Your task to perform on an android device: open chrome privacy settings Image 0: 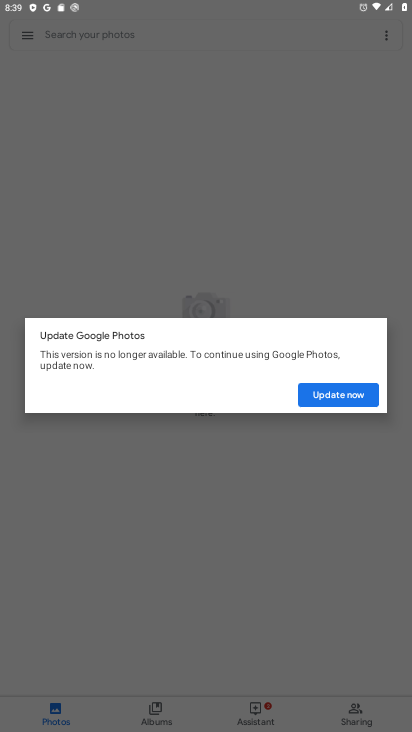
Step 0: press back button
Your task to perform on an android device: open chrome privacy settings Image 1: 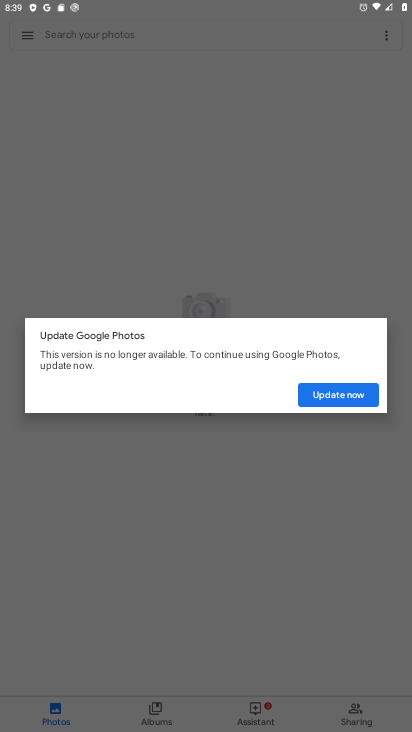
Step 1: press back button
Your task to perform on an android device: open chrome privacy settings Image 2: 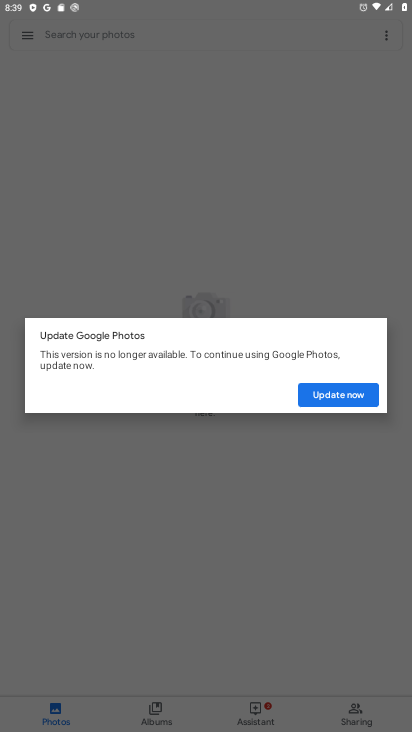
Step 2: press back button
Your task to perform on an android device: open chrome privacy settings Image 3: 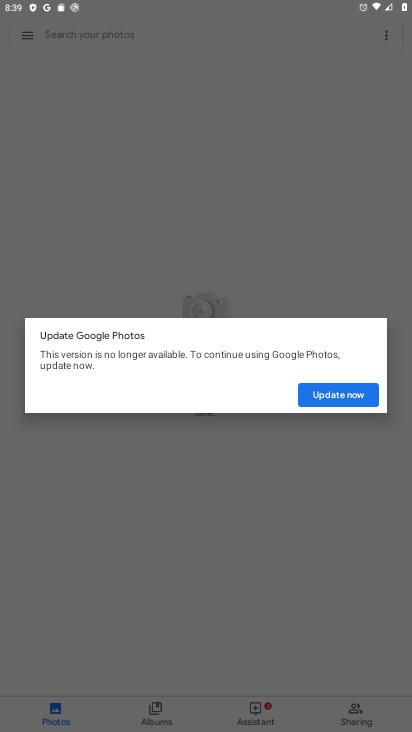
Step 3: press back button
Your task to perform on an android device: open chrome privacy settings Image 4: 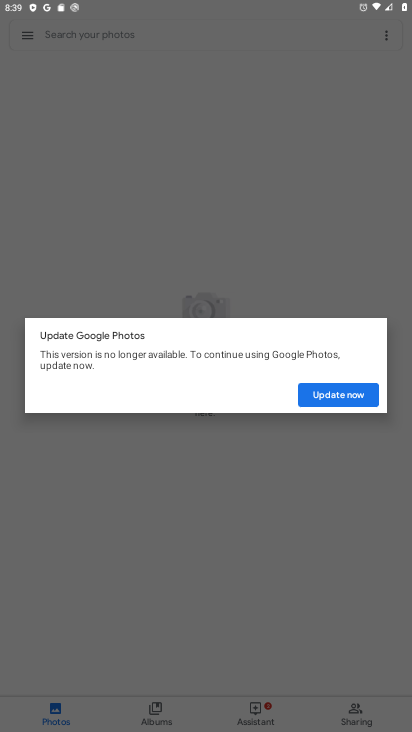
Step 4: press back button
Your task to perform on an android device: open chrome privacy settings Image 5: 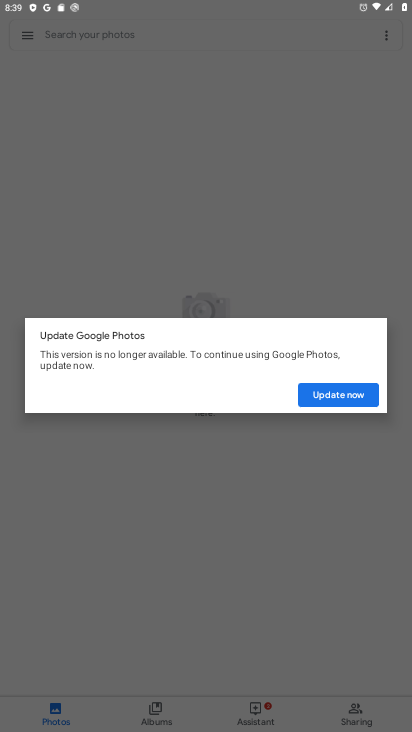
Step 5: press back button
Your task to perform on an android device: open chrome privacy settings Image 6: 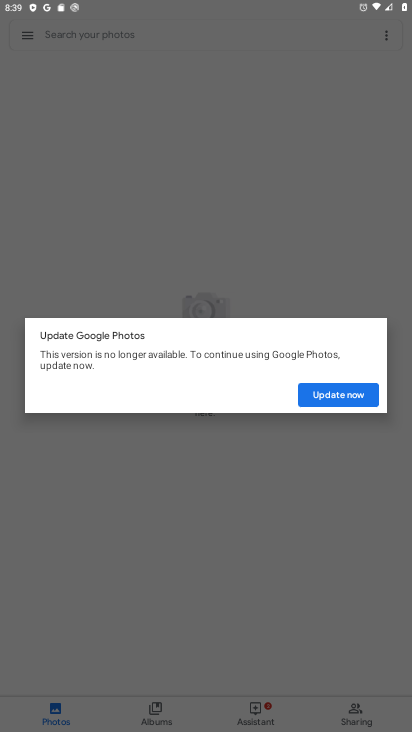
Step 6: press back button
Your task to perform on an android device: open chrome privacy settings Image 7: 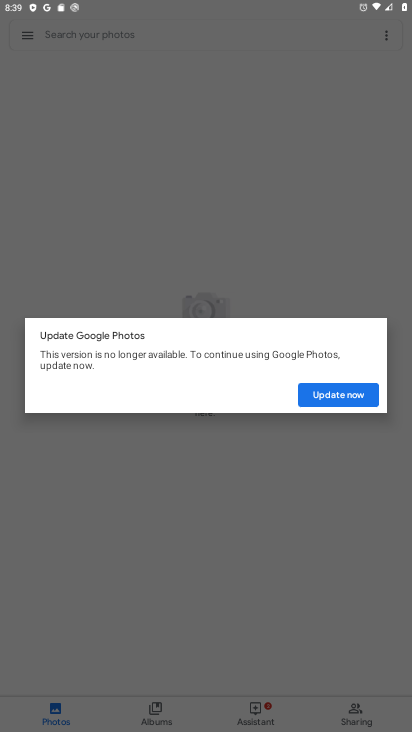
Step 7: press back button
Your task to perform on an android device: open chrome privacy settings Image 8: 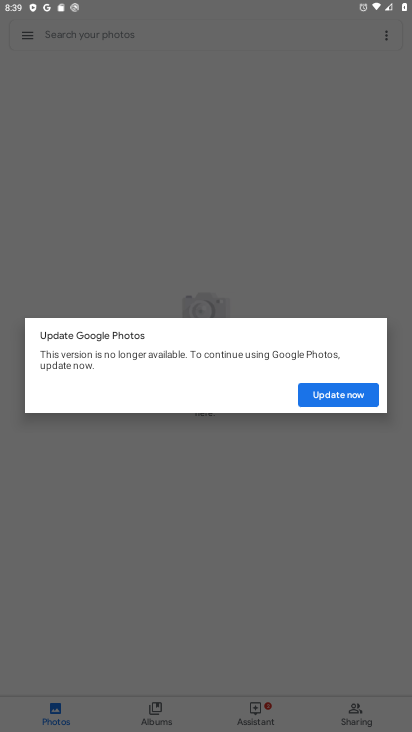
Step 8: click (240, 194)
Your task to perform on an android device: open chrome privacy settings Image 9: 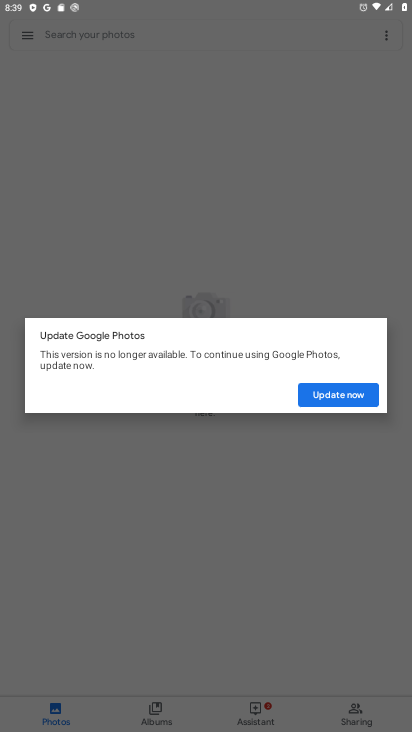
Step 9: click (248, 196)
Your task to perform on an android device: open chrome privacy settings Image 10: 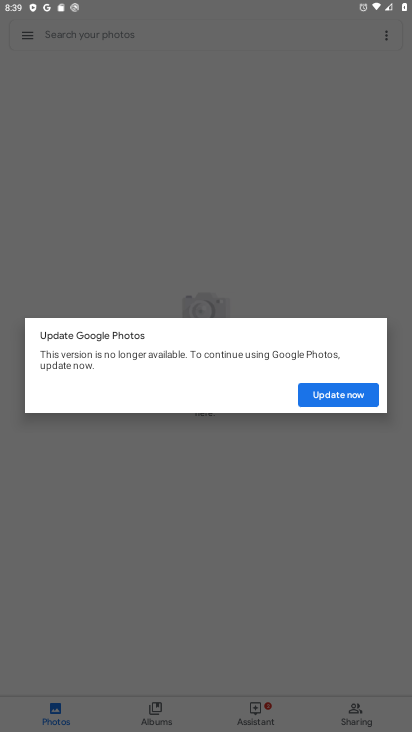
Step 10: click (251, 198)
Your task to perform on an android device: open chrome privacy settings Image 11: 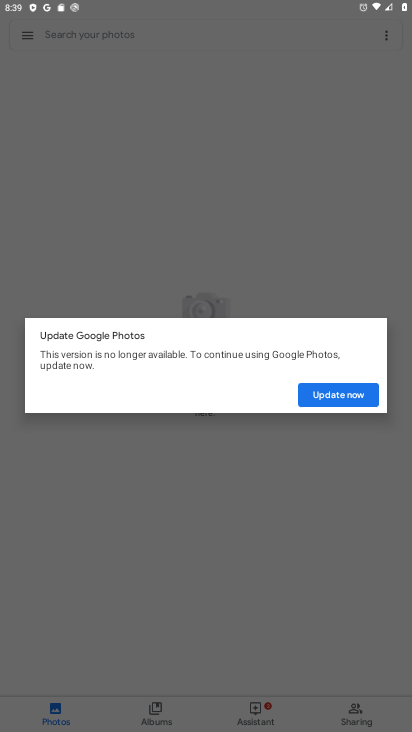
Step 11: click (254, 201)
Your task to perform on an android device: open chrome privacy settings Image 12: 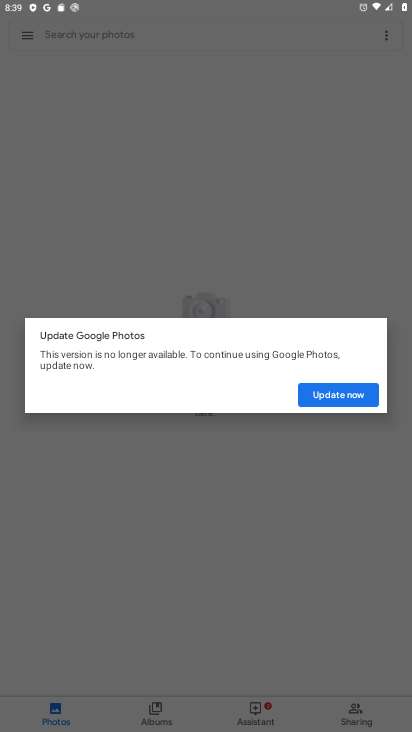
Step 12: click (261, 203)
Your task to perform on an android device: open chrome privacy settings Image 13: 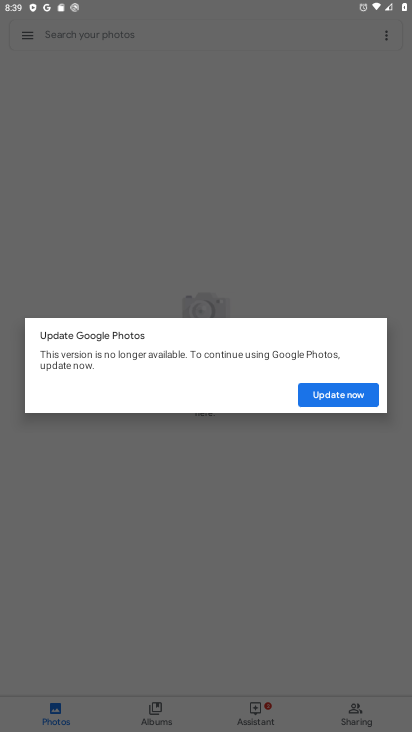
Step 13: click (317, 245)
Your task to perform on an android device: open chrome privacy settings Image 14: 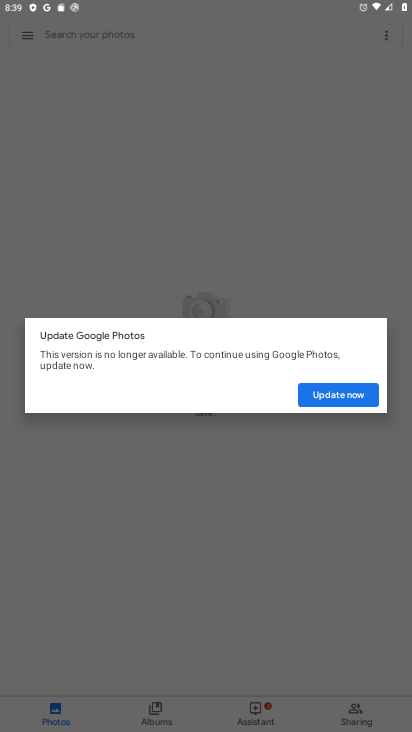
Step 14: click (320, 241)
Your task to perform on an android device: open chrome privacy settings Image 15: 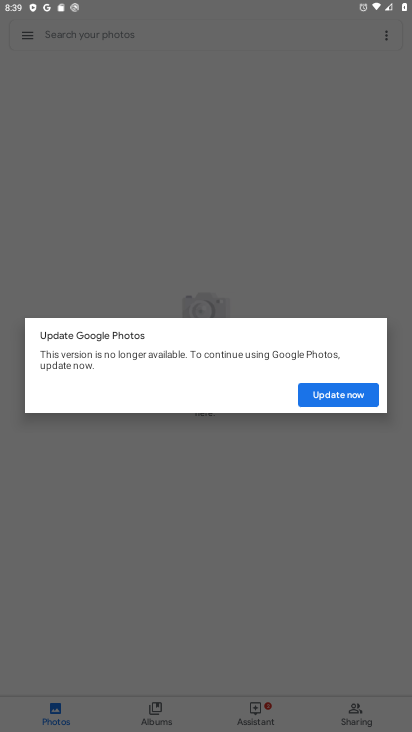
Step 15: click (320, 239)
Your task to perform on an android device: open chrome privacy settings Image 16: 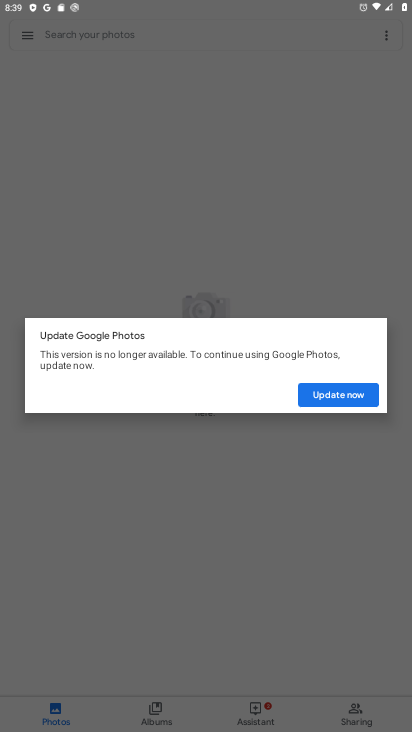
Step 16: click (320, 242)
Your task to perform on an android device: open chrome privacy settings Image 17: 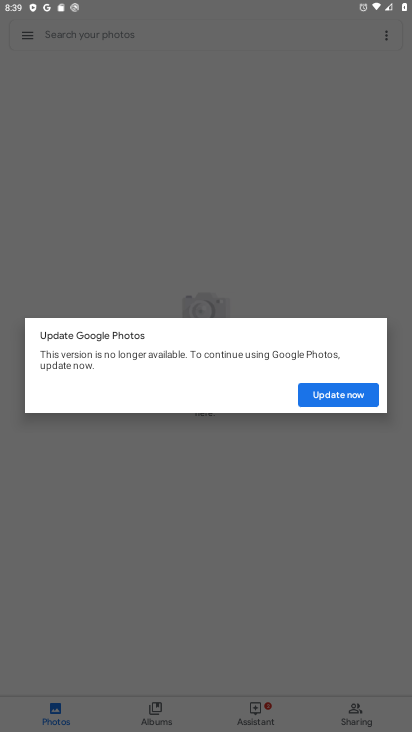
Step 17: click (322, 248)
Your task to perform on an android device: open chrome privacy settings Image 18: 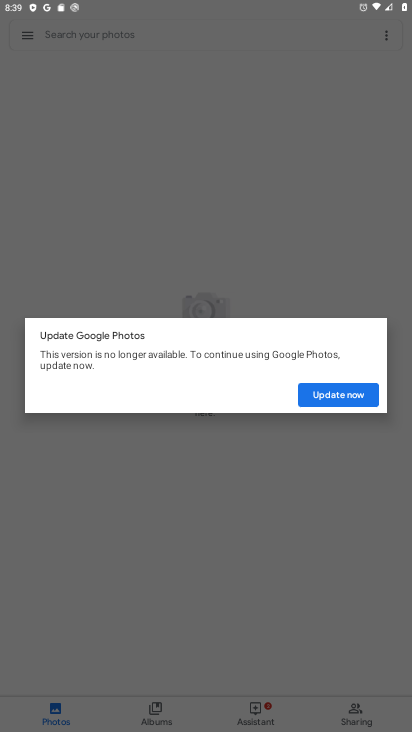
Step 18: press back button
Your task to perform on an android device: open chrome privacy settings Image 19: 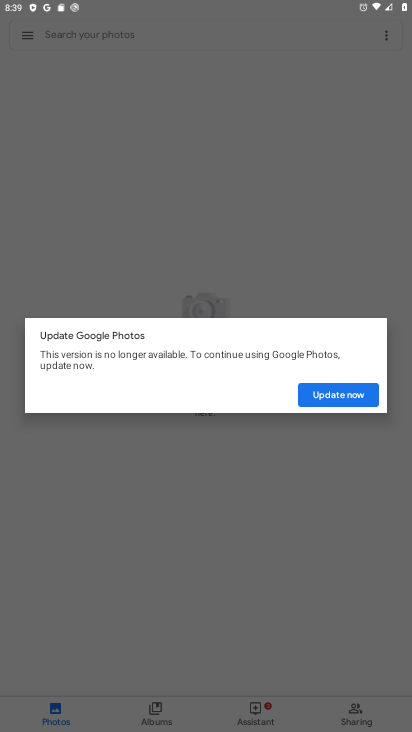
Step 19: press back button
Your task to perform on an android device: open chrome privacy settings Image 20: 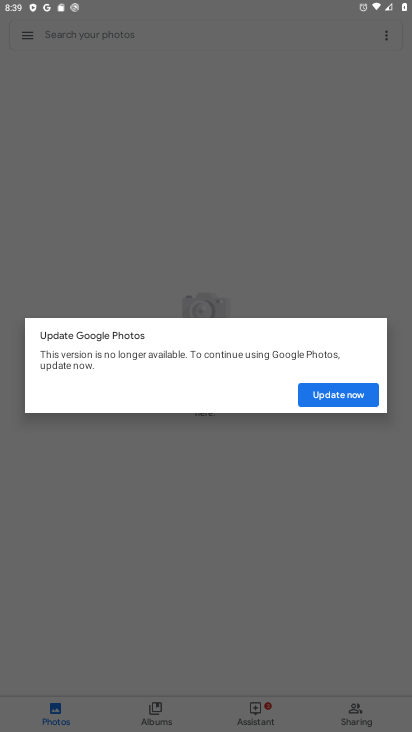
Step 20: press back button
Your task to perform on an android device: open chrome privacy settings Image 21: 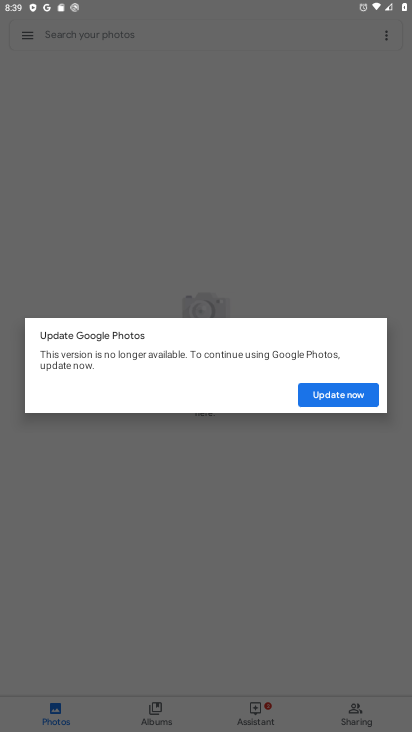
Step 21: press back button
Your task to perform on an android device: open chrome privacy settings Image 22: 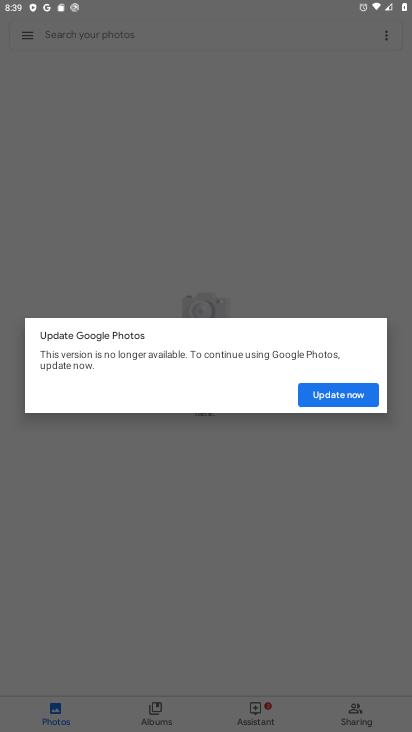
Step 22: click (328, 393)
Your task to perform on an android device: open chrome privacy settings Image 23: 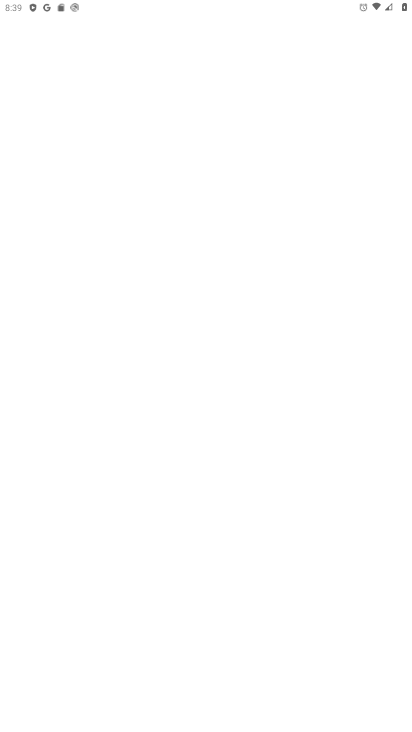
Step 23: press home button
Your task to perform on an android device: open chrome privacy settings Image 24: 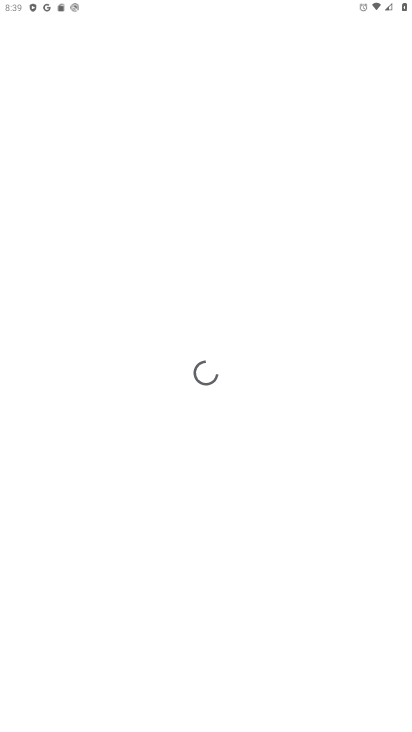
Step 24: press home button
Your task to perform on an android device: open chrome privacy settings Image 25: 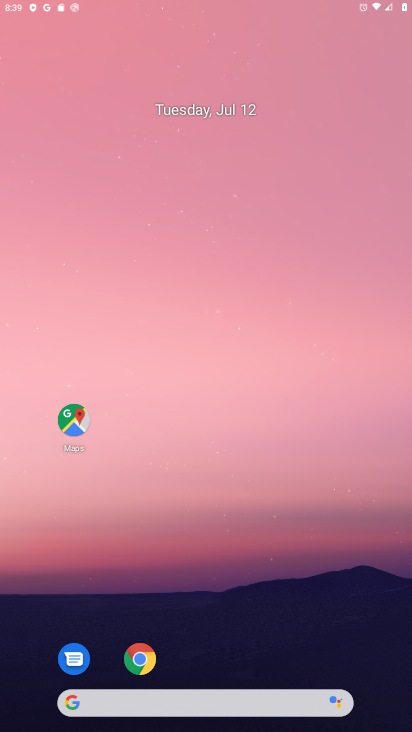
Step 25: press home button
Your task to perform on an android device: open chrome privacy settings Image 26: 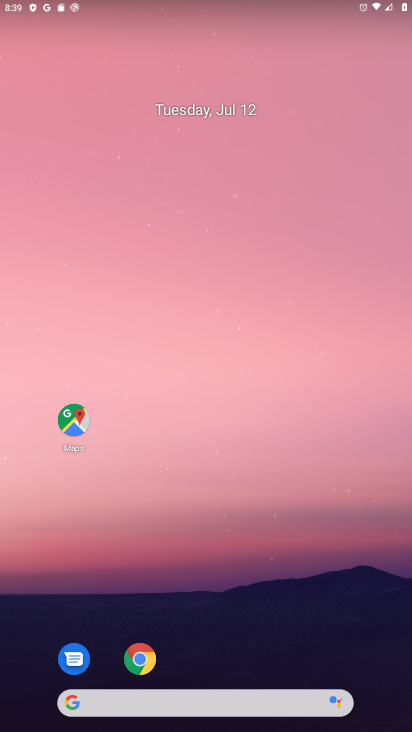
Step 26: press home button
Your task to perform on an android device: open chrome privacy settings Image 27: 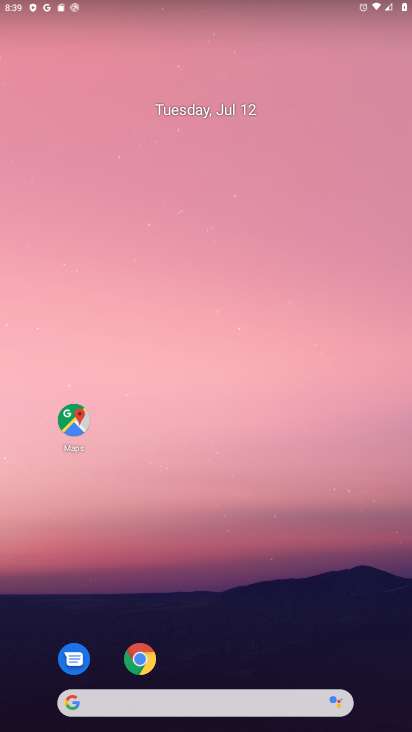
Step 27: drag from (217, 711) to (178, 166)
Your task to perform on an android device: open chrome privacy settings Image 28: 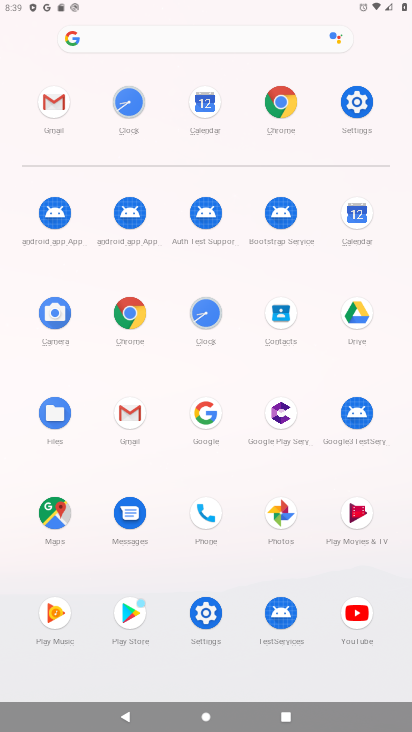
Step 28: click (207, 612)
Your task to perform on an android device: open chrome privacy settings Image 29: 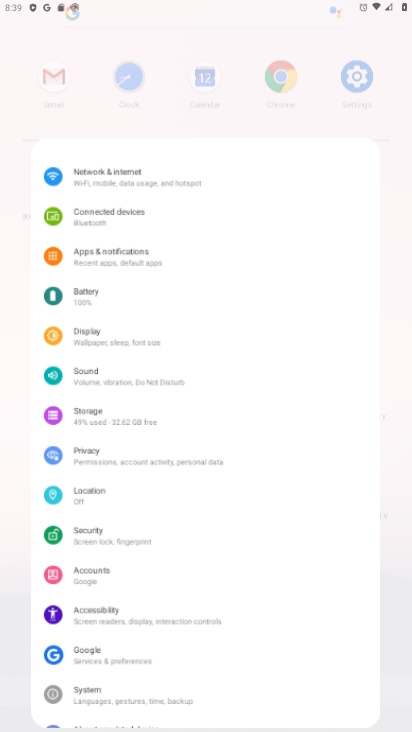
Step 29: click (204, 601)
Your task to perform on an android device: open chrome privacy settings Image 30: 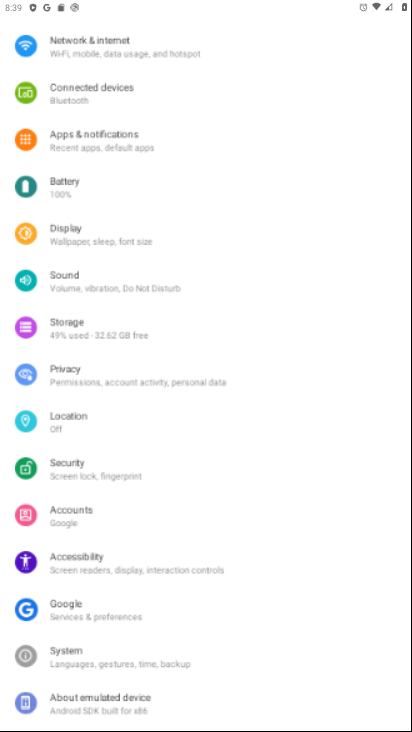
Step 30: click (210, 601)
Your task to perform on an android device: open chrome privacy settings Image 31: 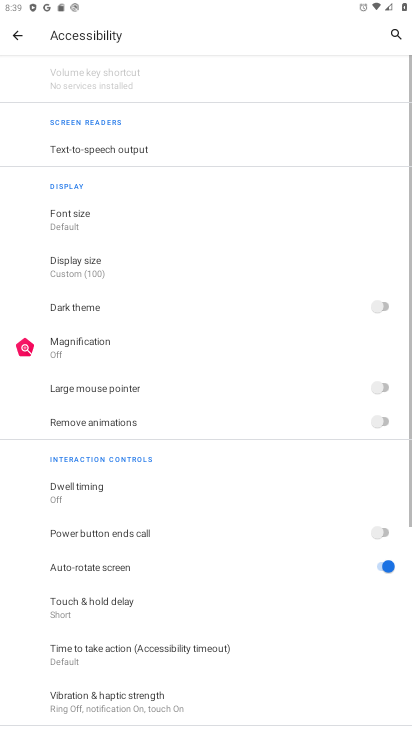
Step 31: click (11, 36)
Your task to perform on an android device: open chrome privacy settings Image 32: 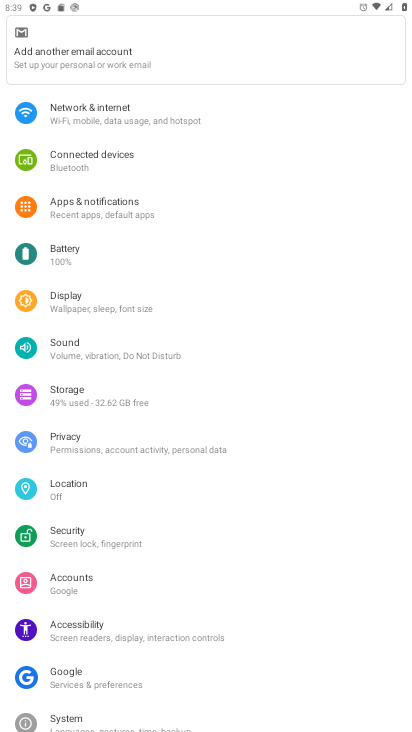
Step 32: click (64, 451)
Your task to perform on an android device: open chrome privacy settings Image 33: 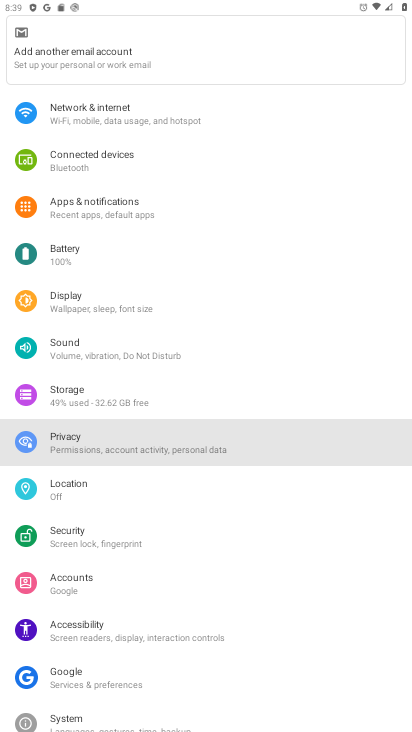
Step 33: click (67, 444)
Your task to perform on an android device: open chrome privacy settings Image 34: 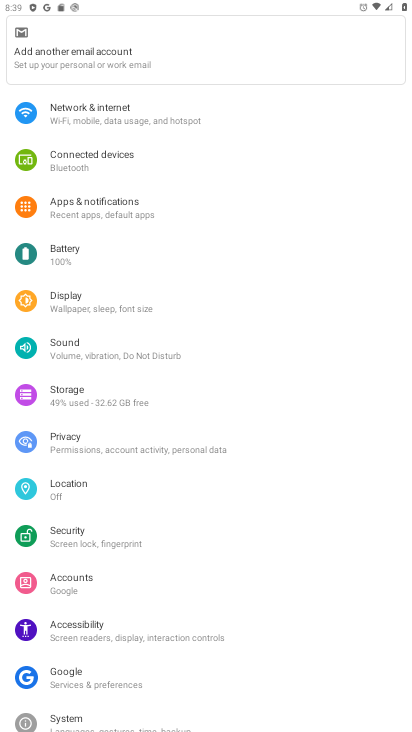
Step 34: click (71, 442)
Your task to perform on an android device: open chrome privacy settings Image 35: 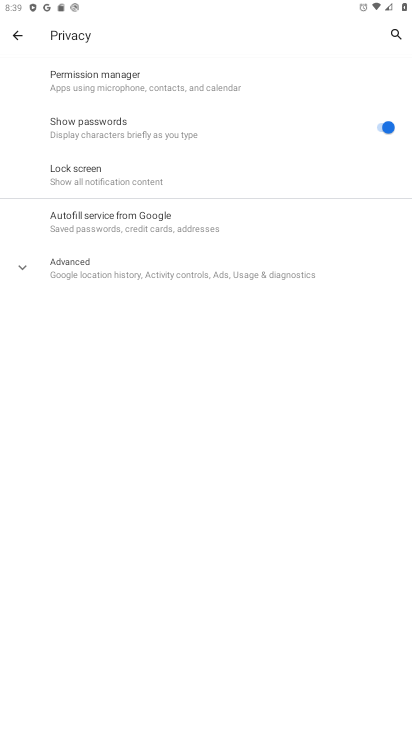
Step 35: task complete